Your task to perform on an android device: Go to Android settings Image 0: 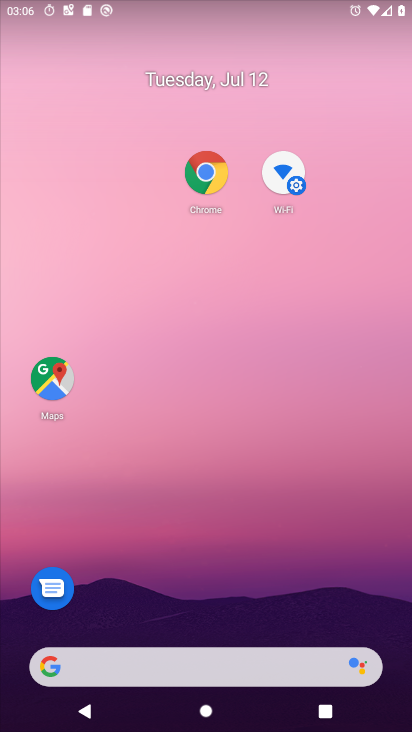
Step 0: drag from (190, 630) to (207, 281)
Your task to perform on an android device: Go to Android settings Image 1: 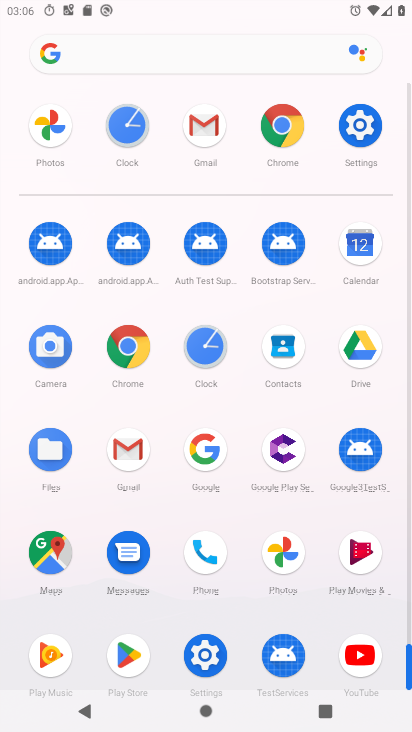
Step 1: click (207, 646)
Your task to perform on an android device: Go to Android settings Image 2: 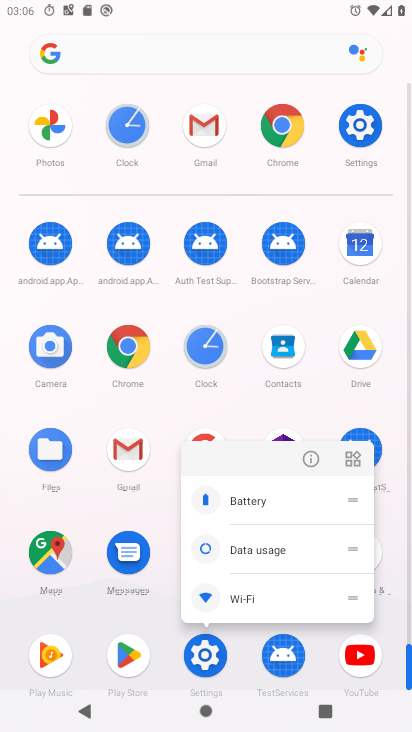
Step 2: click (310, 454)
Your task to perform on an android device: Go to Android settings Image 3: 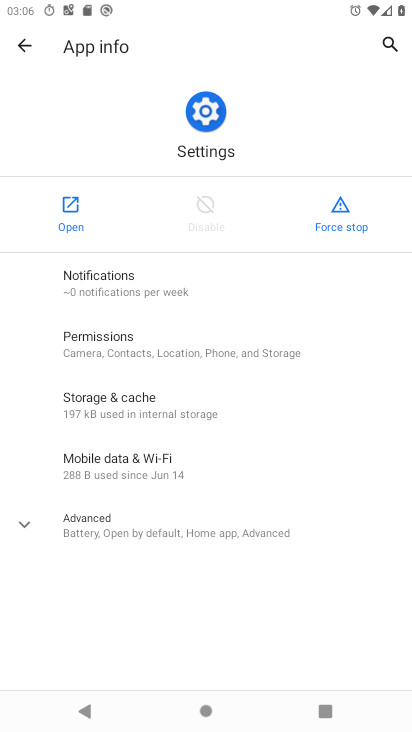
Step 3: click (54, 212)
Your task to perform on an android device: Go to Android settings Image 4: 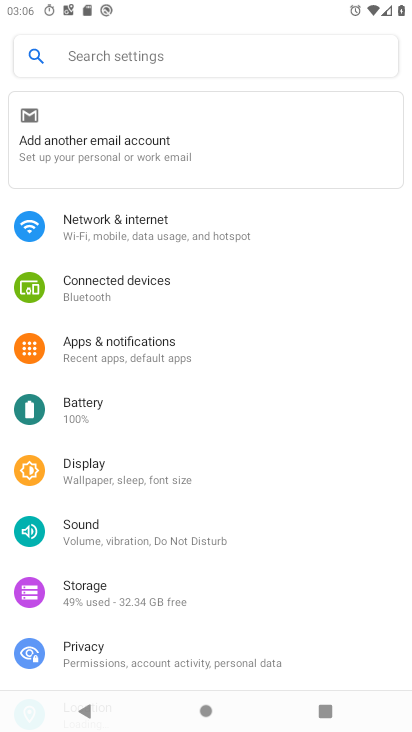
Step 4: drag from (194, 627) to (292, 0)
Your task to perform on an android device: Go to Android settings Image 5: 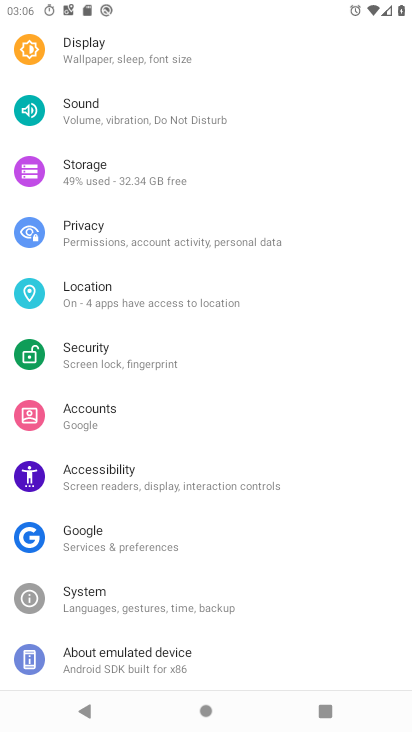
Step 5: drag from (176, 563) to (261, 14)
Your task to perform on an android device: Go to Android settings Image 6: 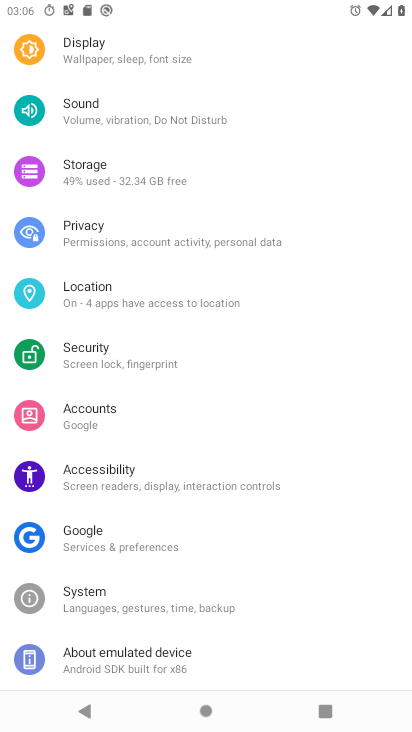
Step 6: click (115, 665)
Your task to perform on an android device: Go to Android settings Image 7: 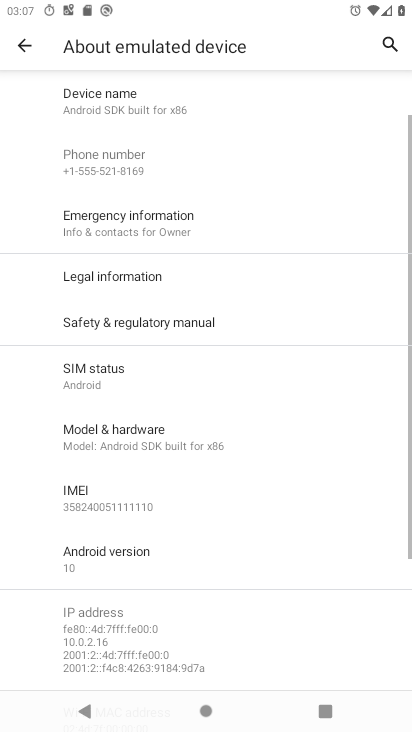
Step 7: drag from (173, 559) to (228, 159)
Your task to perform on an android device: Go to Android settings Image 8: 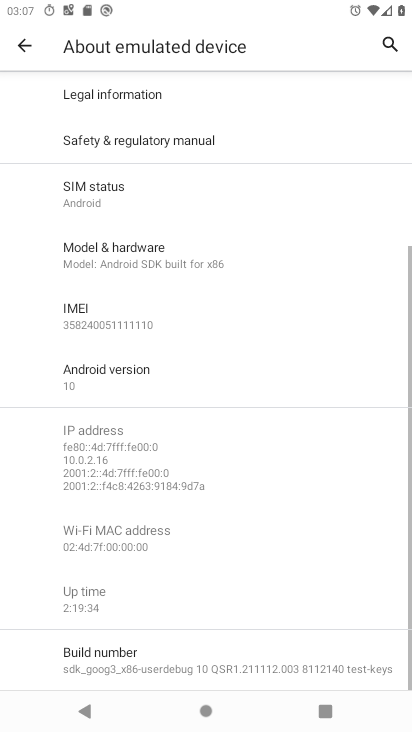
Step 8: drag from (205, 113) to (216, 542)
Your task to perform on an android device: Go to Android settings Image 9: 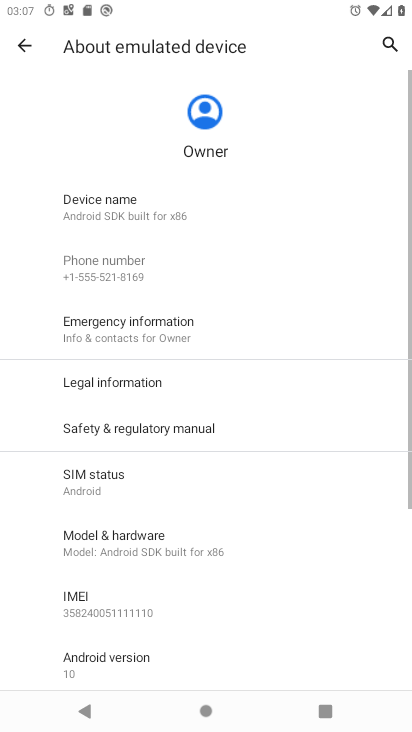
Step 9: drag from (160, 513) to (186, 342)
Your task to perform on an android device: Go to Android settings Image 10: 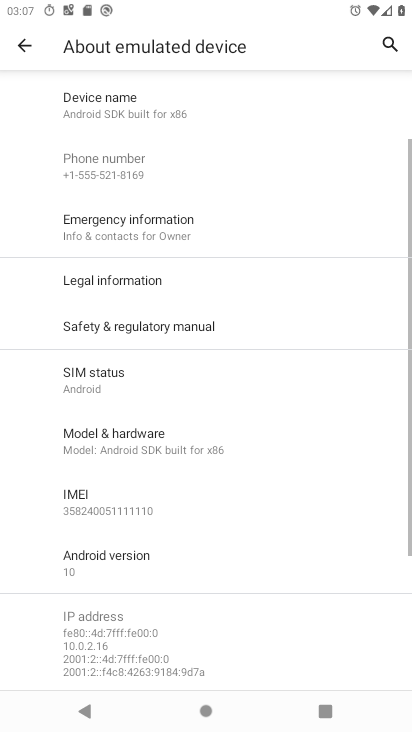
Step 10: click (137, 564)
Your task to perform on an android device: Go to Android settings Image 11: 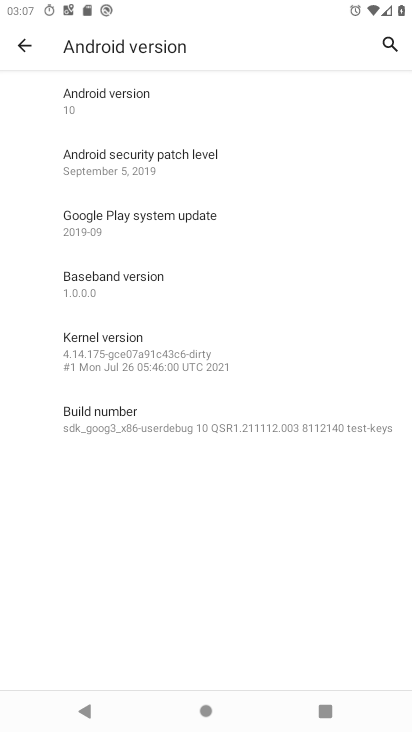
Step 11: task complete